Your task to perform on an android device: change notifications settings Image 0: 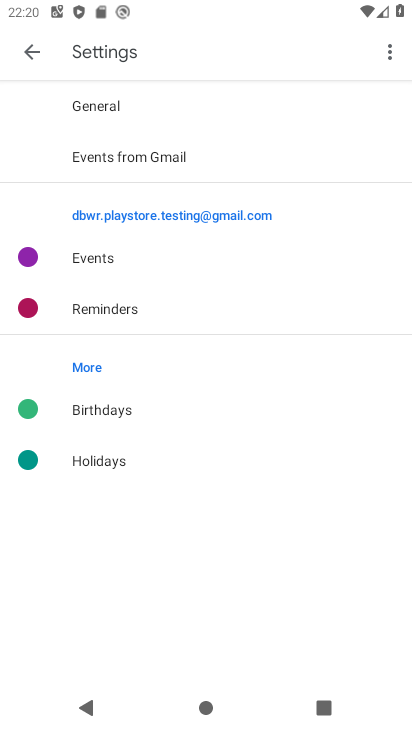
Step 0: press home button
Your task to perform on an android device: change notifications settings Image 1: 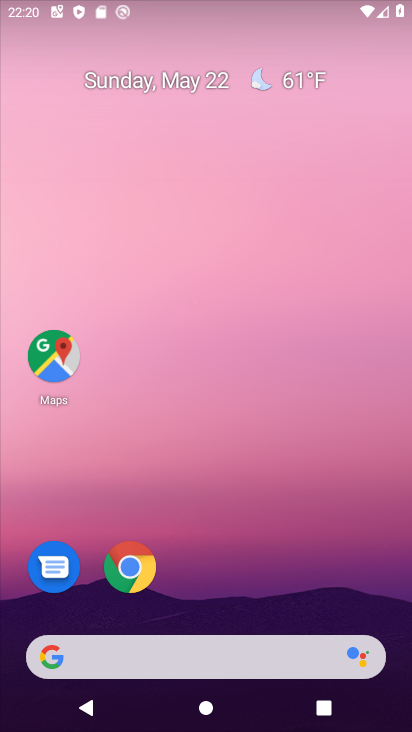
Step 1: drag from (217, 620) to (181, 34)
Your task to perform on an android device: change notifications settings Image 2: 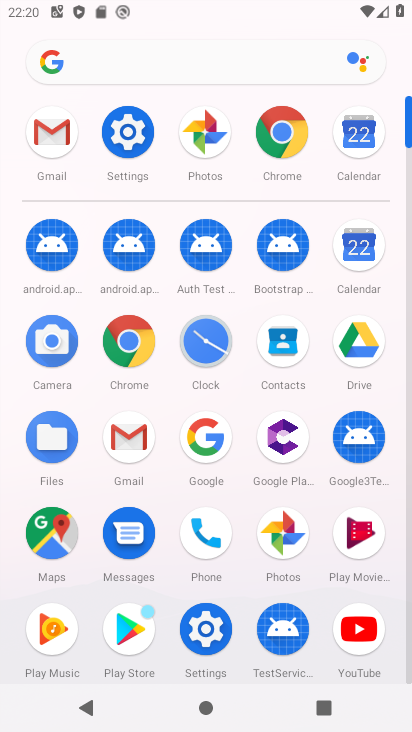
Step 2: click (124, 134)
Your task to perform on an android device: change notifications settings Image 3: 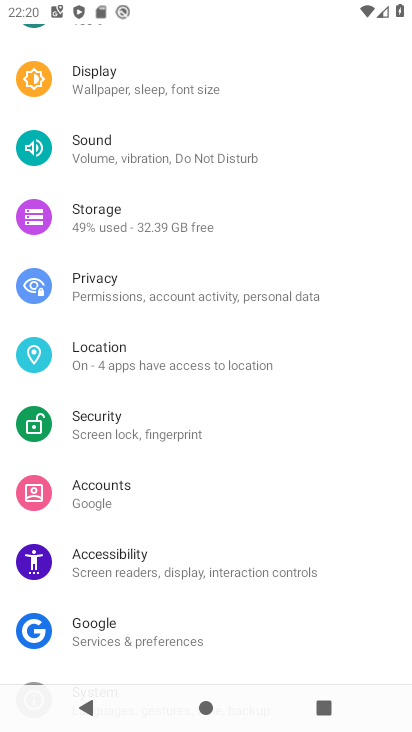
Step 3: drag from (155, 188) to (121, 585)
Your task to perform on an android device: change notifications settings Image 4: 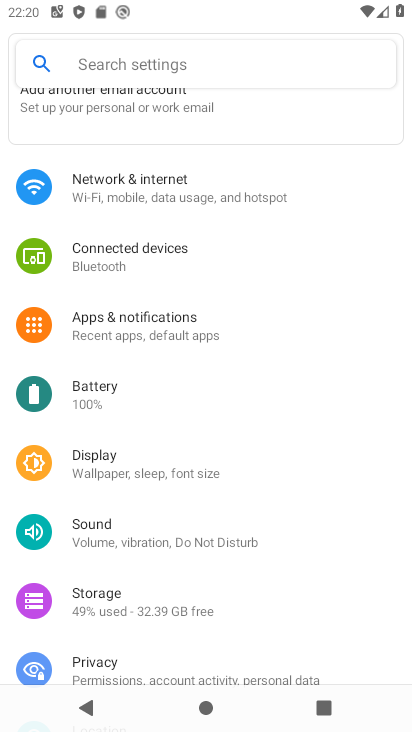
Step 4: click (158, 317)
Your task to perform on an android device: change notifications settings Image 5: 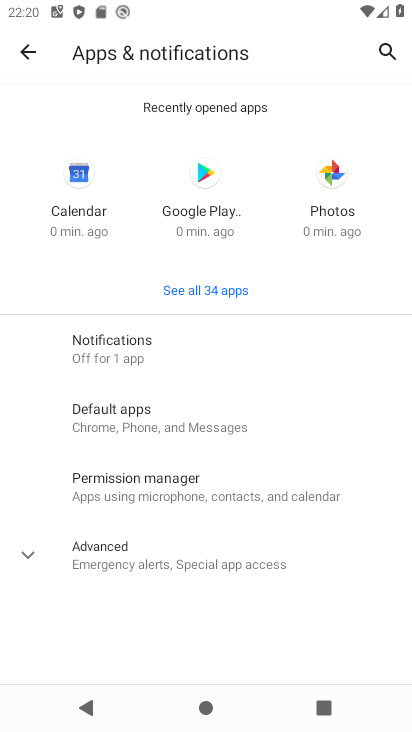
Step 5: click (139, 368)
Your task to perform on an android device: change notifications settings Image 6: 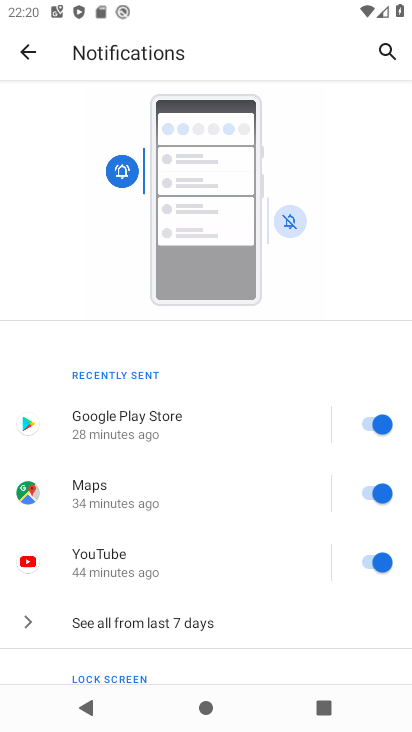
Step 6: drag from (209, 577) to (112, 94)
Your task to perform on an android device: change notifications settings Image 7: 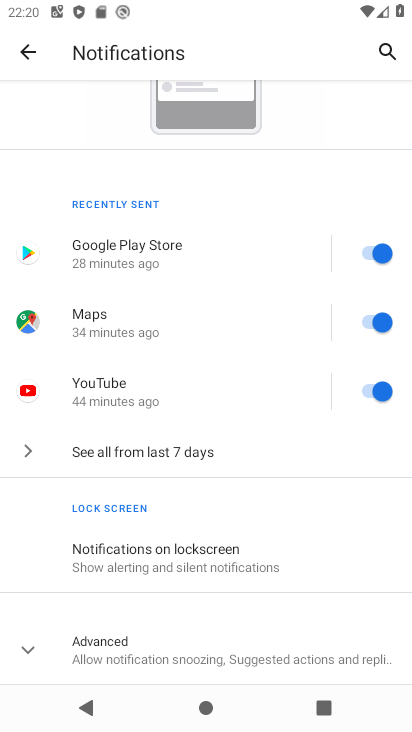
Step 7: click (143, 454)
Your task to perform on an android device: change notifications settings Image 8: 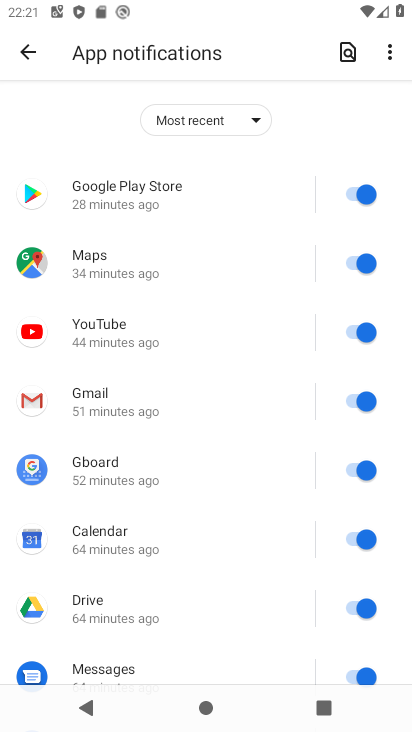
Step 8: click (202, 113)
Your task to perform on an android device: change notifications settings Image 9: 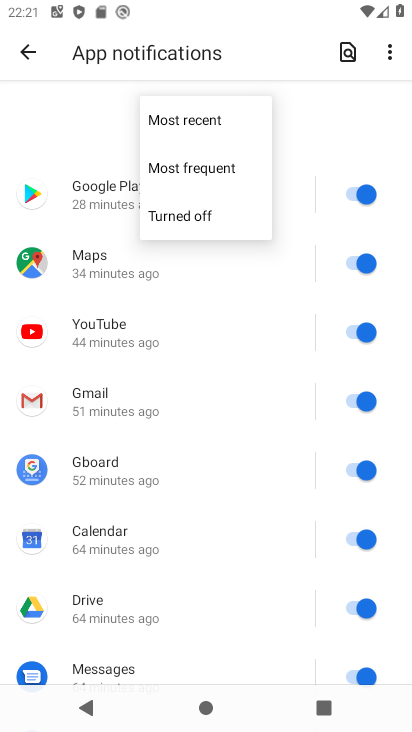
Step 9: click (207, 208)
Your task to perform on an android device: change notifications settings Image 10: 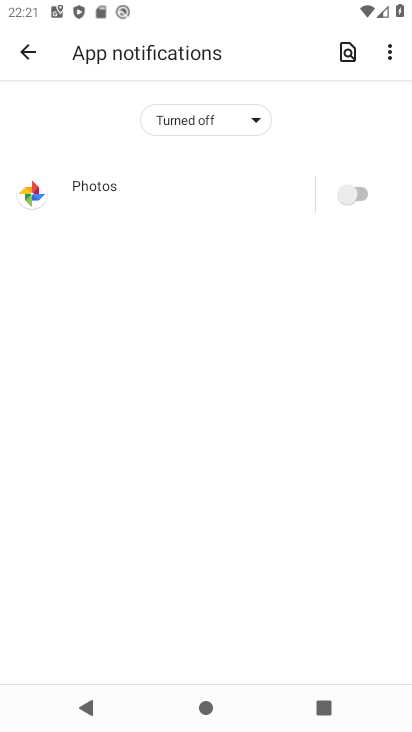
Step 10: task complete